Your task to perform on an android device: Do I have any events this weekend? Image 0: 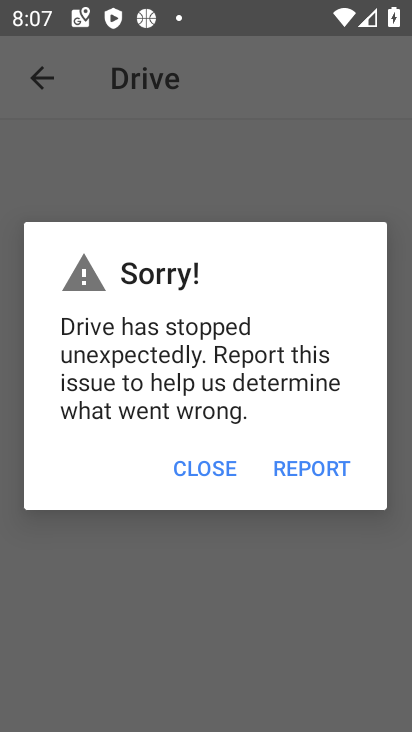
Step 0: press home button
Your task to perform on an android device: Do I have any events this weekend? Image 1: 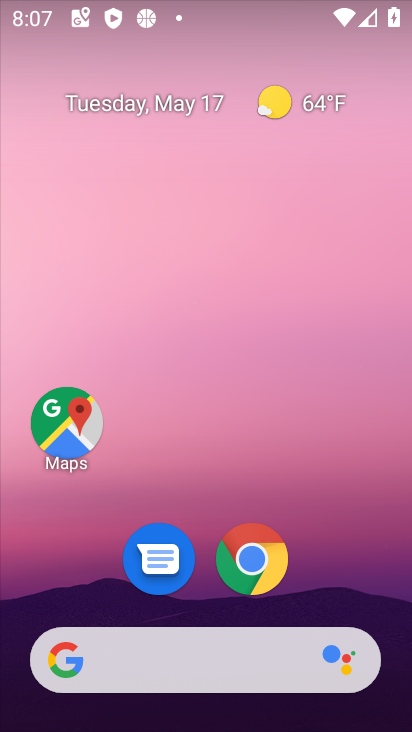
Step 1: drag from (212, 606) to (158, 47)
Your task to perform on an android device: Do I have any events this weekend? Image 2: 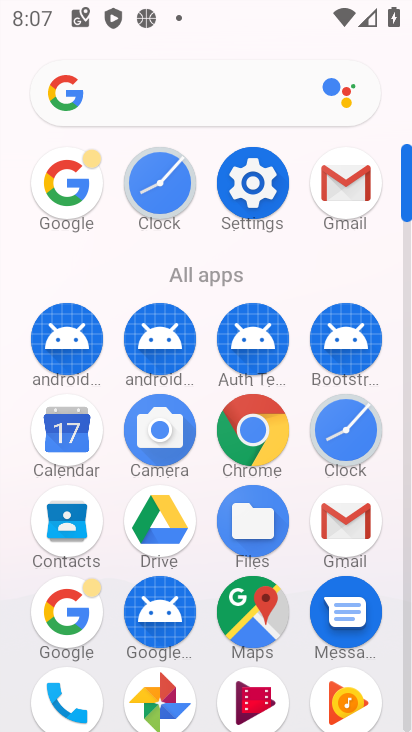
Step 2: click (84, 421)
Your task to perform on an android device: Do I have any events this weekend? Image 3: 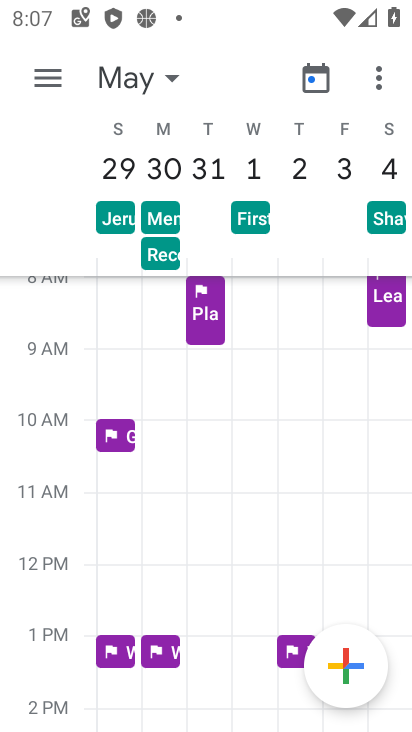
Step 3: click (320, 74)
Your task to perform on an android device: Do I have any events this weekend? Image 4: 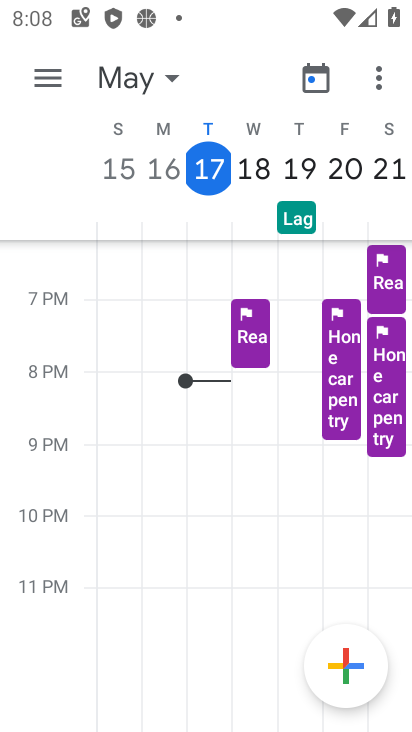
Step 4: task complete